Your task to perform on an android device: Go to accessibility settings Image 0: 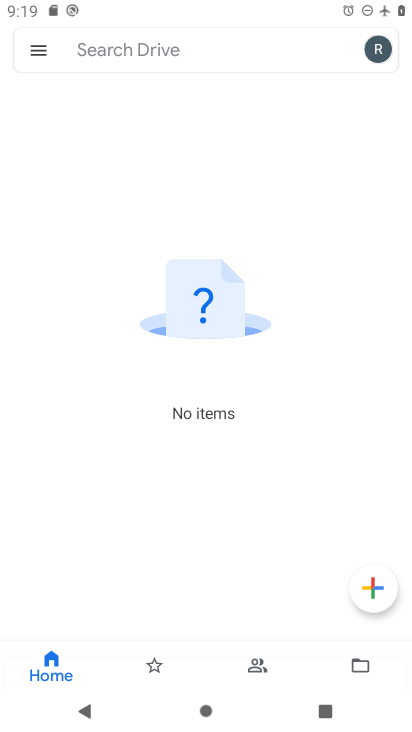
Step 0: press home button
Your task to perform on an android device: Go to accessibility settings Image 1: 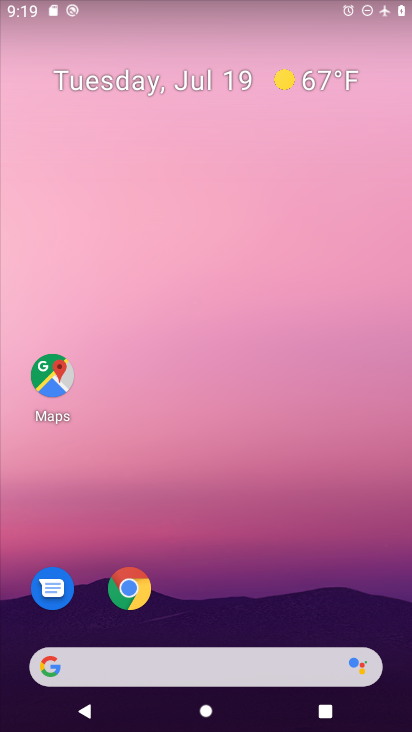
Step 1: drag from (342, 562) to (348, 81)
Your task to perform on an android device: Go to accessibility settings Image 2: 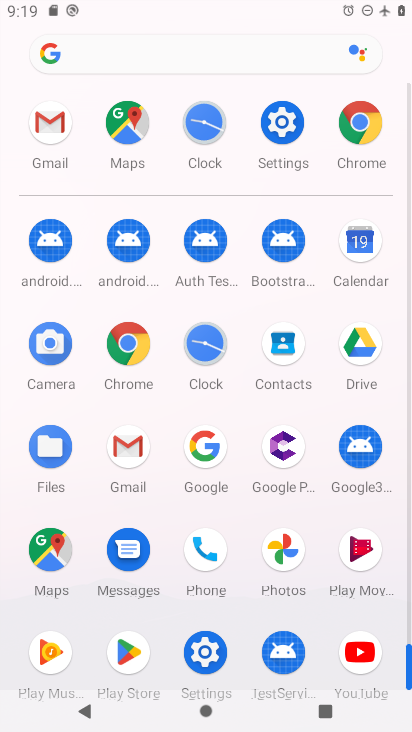
Step 2: click (294, 132)
Your task to perform on an android device: Go to accessibility settings Image 3: 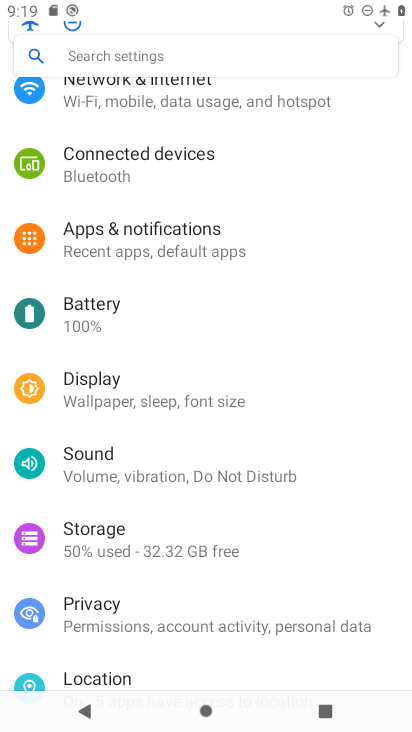
Step 3: drag from (345, 477) to (343, 248)
Your task to perform on an android device: Go to accessibility settings Image 4: 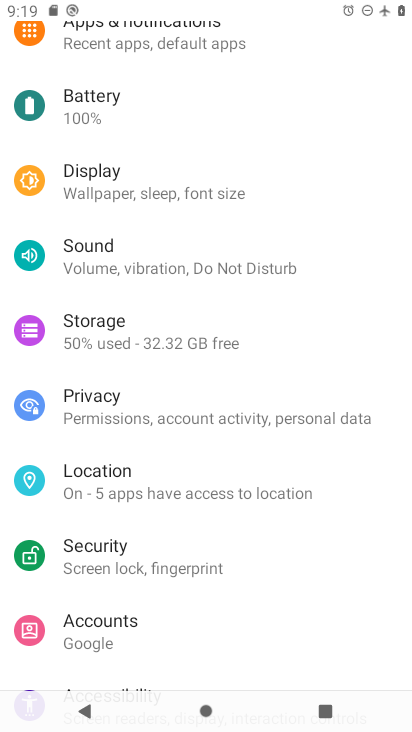
Step 4: drag from (349, 537) to (350, 273)
Your task to perform on an android device: Go to accessibility settings Image 5: 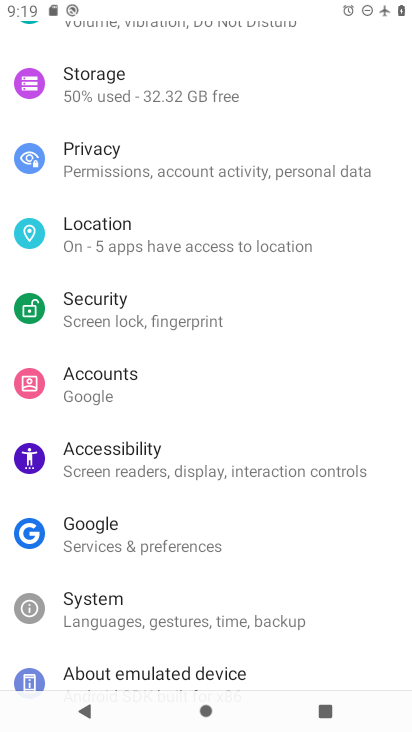
Step 5: drag from (339, 538) to (339, 363)
Your task to perform on an android device: Go to accessibility settings Image 6: 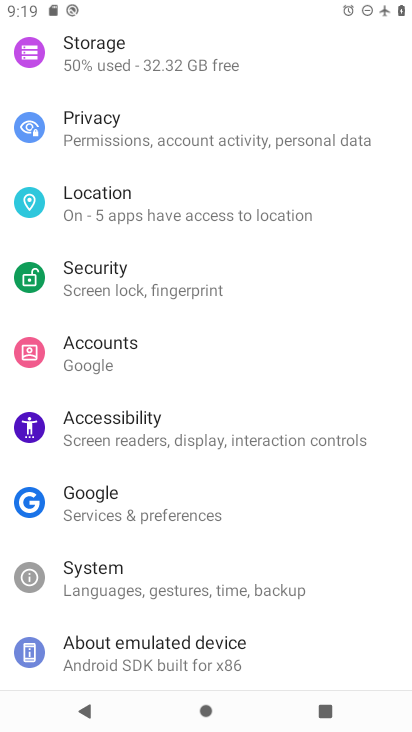
Step 6: click (288, 439)
Your task to perform on an android device: Go to accessibility settings Image 7: 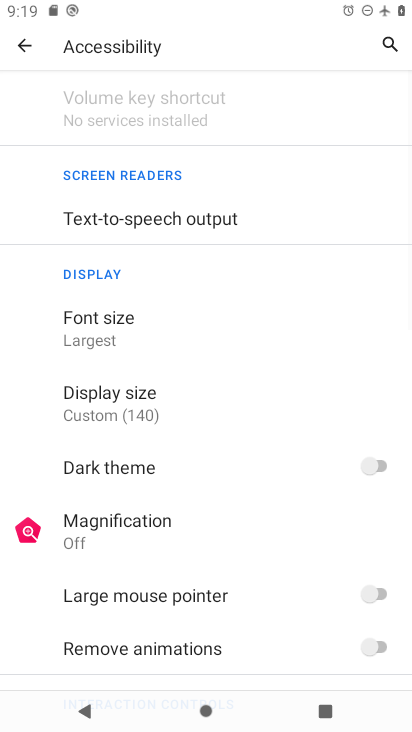
Step 7: task complete